Your task to perform on an android device: toggle notifications settings in the gmail app Image 0: 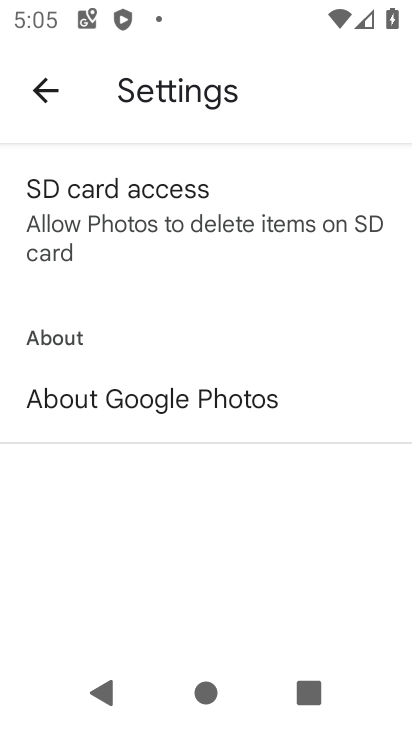
Step 0: press home button
Your task to perform on an android device: toggle notifications settings in the gmail app Image 1: 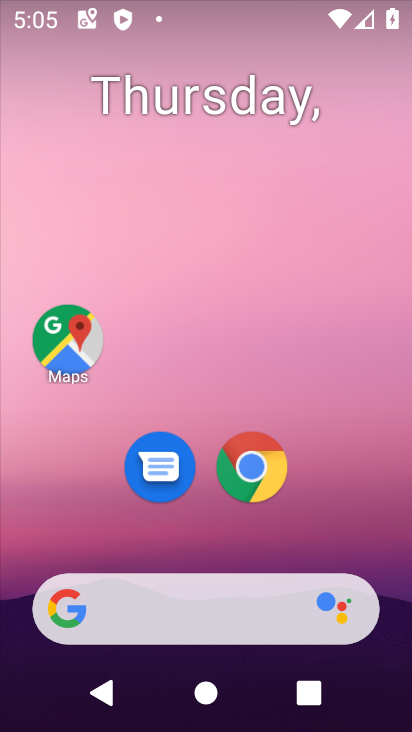
Step 1: drag from (405, 558) to (239, 121)
Your task to perform on an android device: toggle notifications settings in the gmail app Image 2: 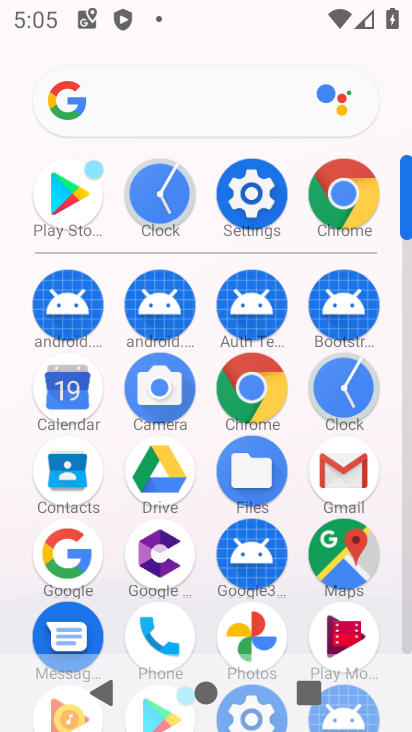
Step 2: click (359, 469)
Your task to perform on an android device: toggle notifications settings in the gmail app Image 3: 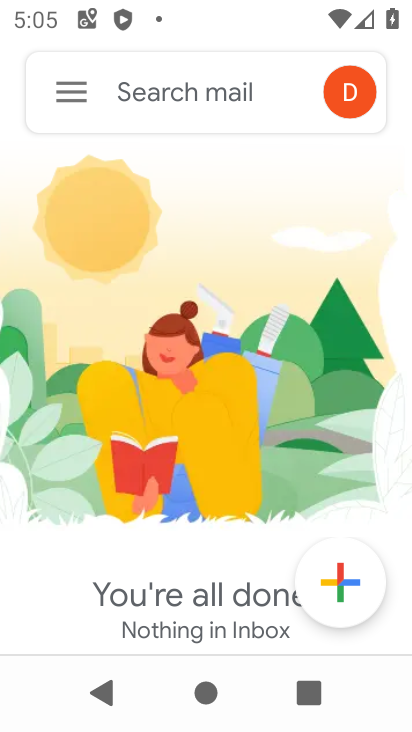
Step 3: click (89, 81)
Your task to perform on an android device: toggle notifications settings in the gmail app Image 4: 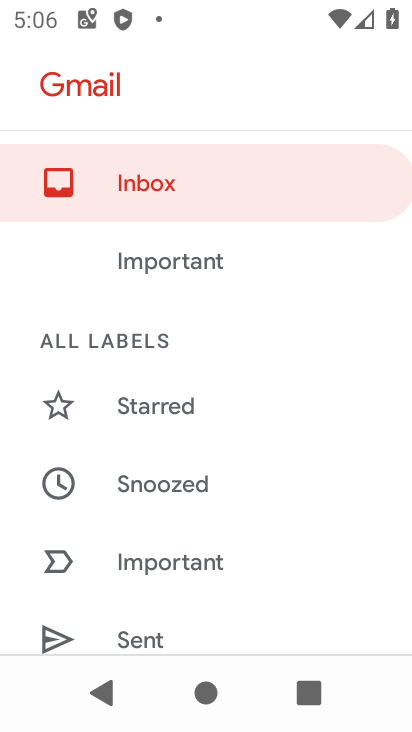
Step 4: drag from (298, 592) to (248, 101)
Your task to perform on an android device: toggle notifications settings in the gmail app Image 5: 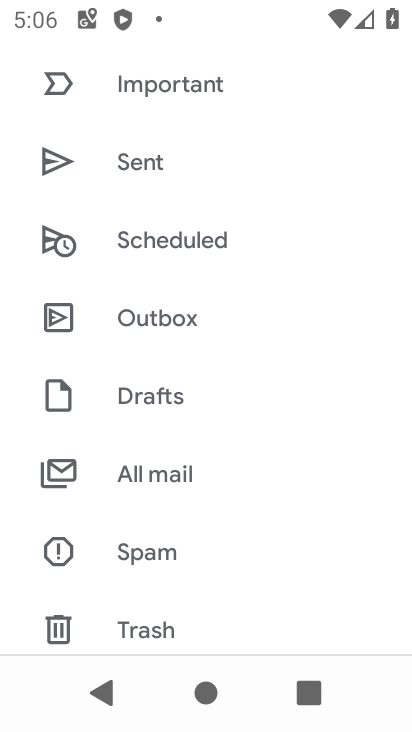
Step 5: drag from (325, 513) to (313, 213)
Your task to perform on an android device: toggle notifications settings in the gmail app Image 6: 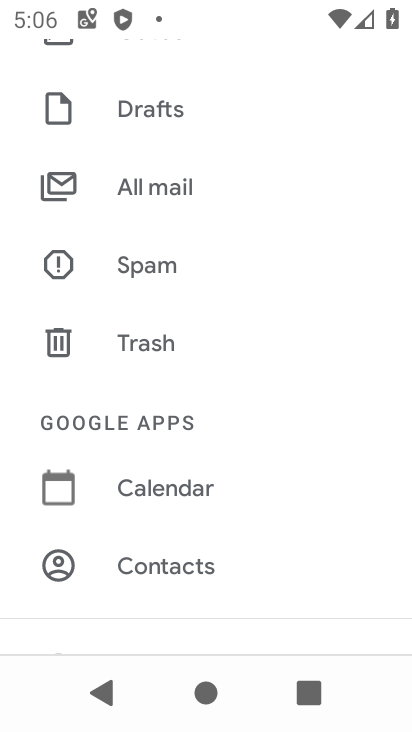
Step 6: drag from (332, 579) to (278, 83)
Your task to perform on an android device: toggle notifications settings in the gmail app Image 7: 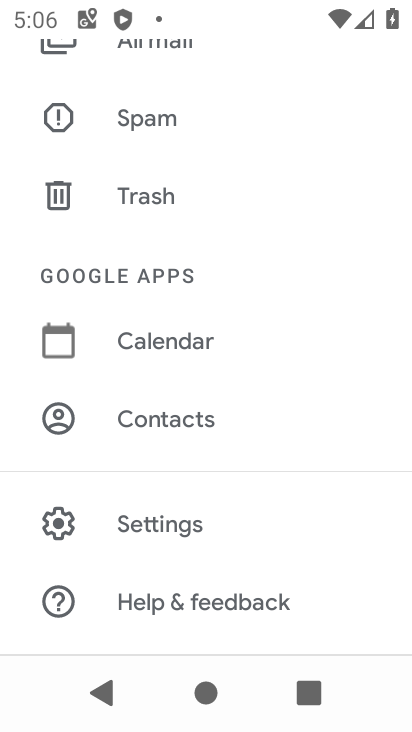
Step 7: click (309, 534)
Your task to perform on an android device: toggle notifications settings in the gmail app Image 8: 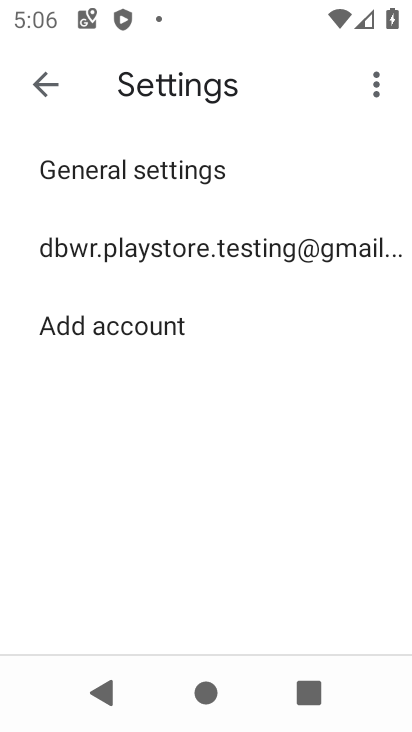
Step 8: click (262, 250)
Your task to perform on an android device: toggle notifications settings in the gmail app Image 9: 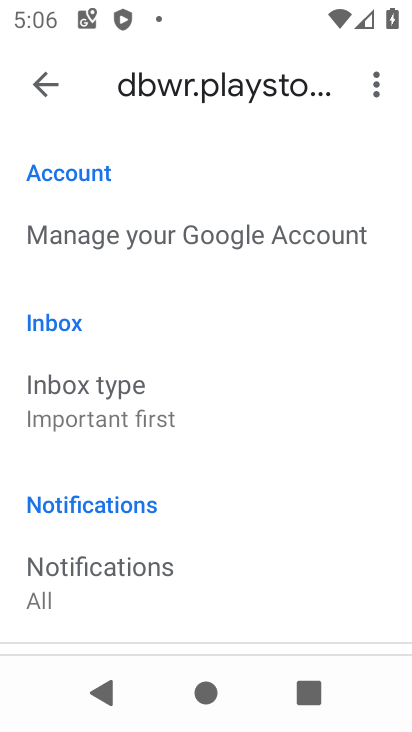
Step 9: drag from (298, 579) to (250, 168)
Your task to perform on an android device: toggle notifications settings in the gmail app Image 10: 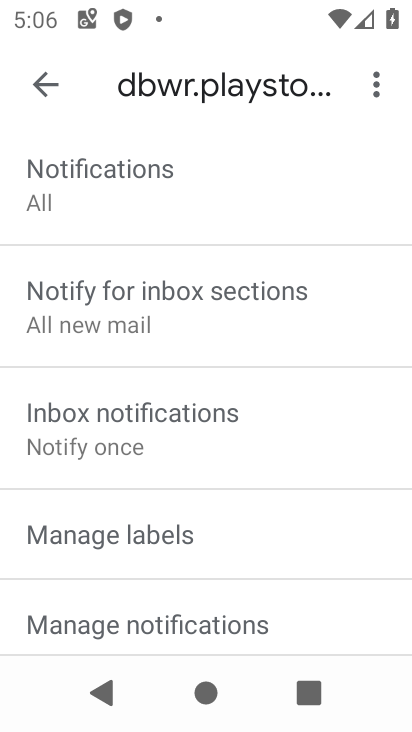
Step 10: drag from (323, 525) to (291, 248)
Your task to perform on an android device: toggle notifications settings in the gmail app Image 11: 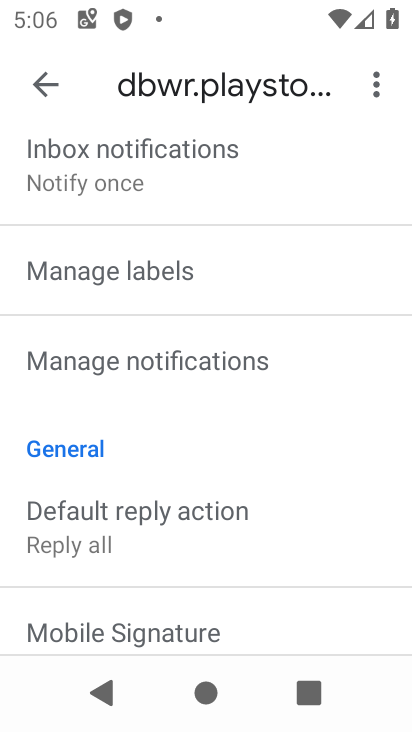
Step 11: click (293, 374)
Your task to perform on an android device: toggle notifications settings in the gmail app Image 12: 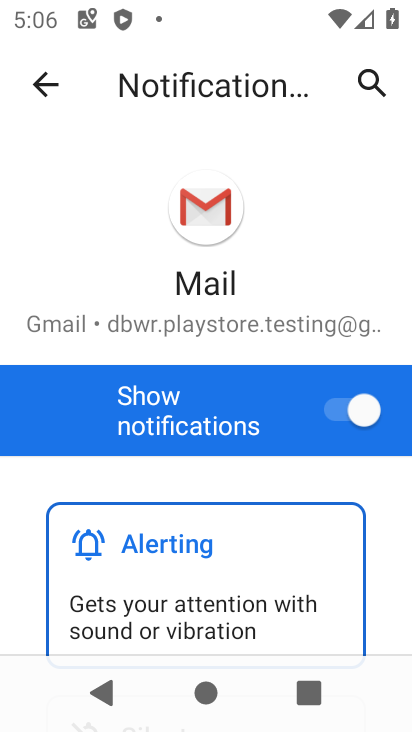
Step 12: drag from (398, 620) to (312, 326)
Your task to perform on an android device: toggle notifications settings in the gmail app Image 13: 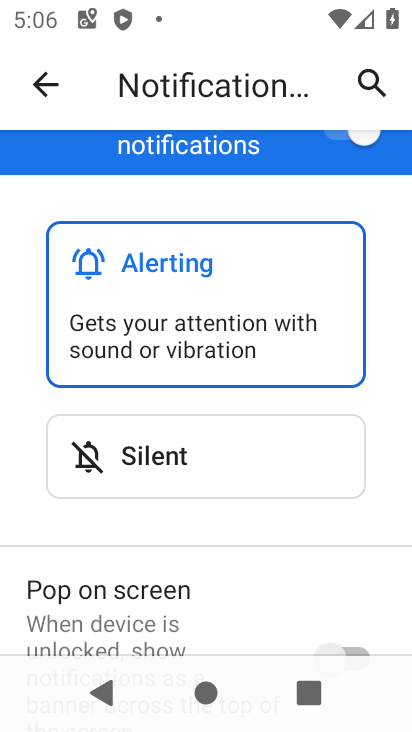
Step 13: click (316, 438)
Your task to perform on an android device: toggle notifications settings in the gmail app Image 14: 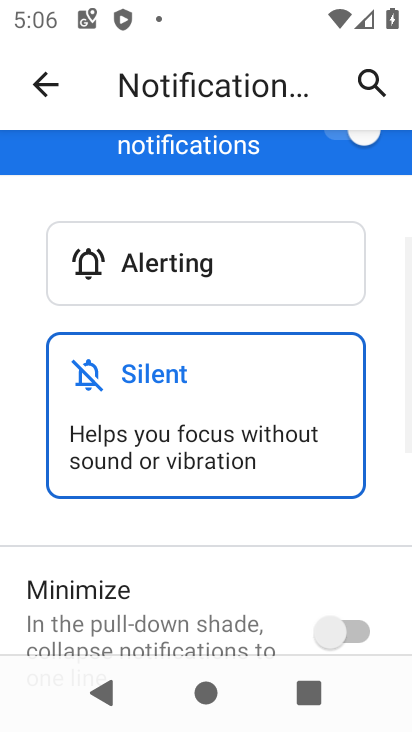
Step 14: drag from (389, 524) to (342, 272)
Your task to perform on an android device: toggle notifications settings in the gmail app Image 15: 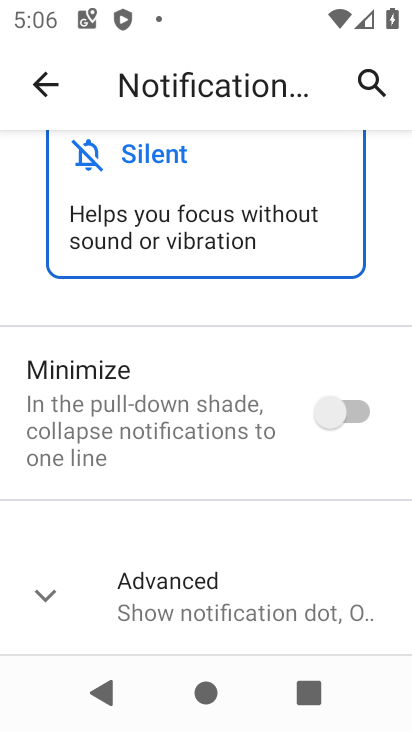
Step 15: click (343, 396)
Your task to perform on an android device: toggle notifications settings in the gmail app Image 16: 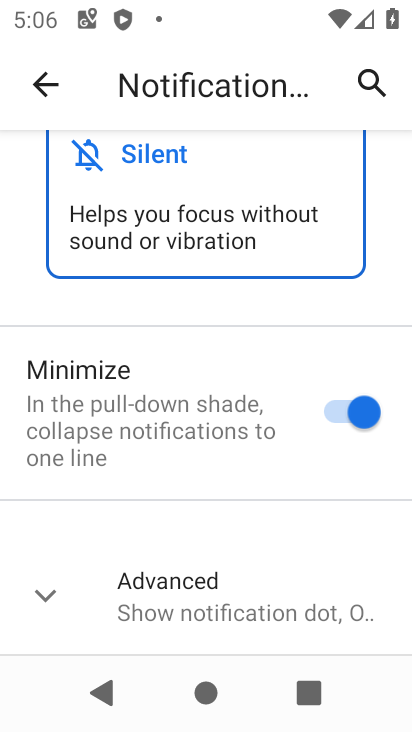
Step 16: task complete